Your task to perform on an android device: toggle priority inbox in the gmail app Image 0: 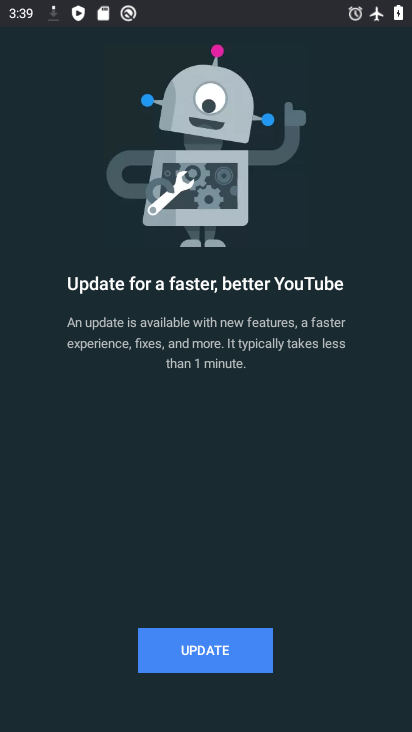
Step 0: press back button
Your task to perform on an android device: toggle priority inbox in the gmail app Image 1: 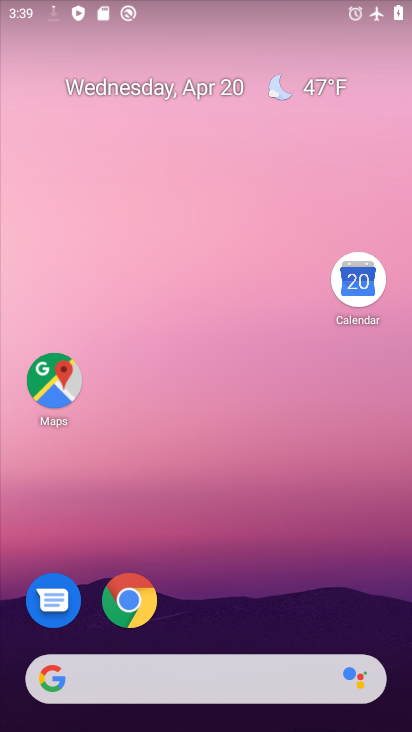
Step 1: drag from (231, 619) to (258, 246)
Your task to perform on an android device: toggle priority inbox in the gmail app Image 2: 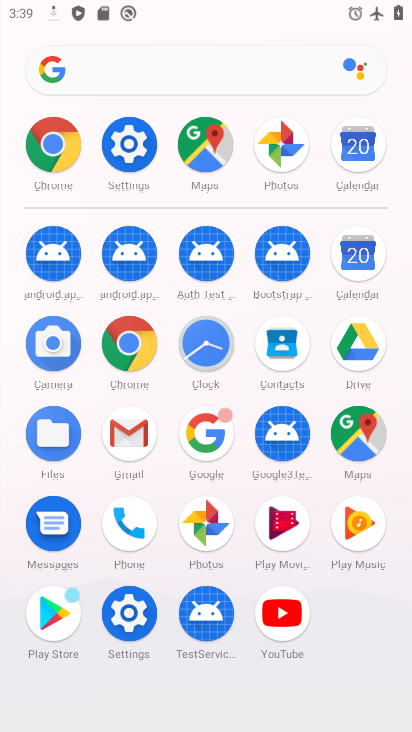
Step 2: click (114, 425)
Your task to perform on an android device: toggle priority inbox in the gmail app Image 3: 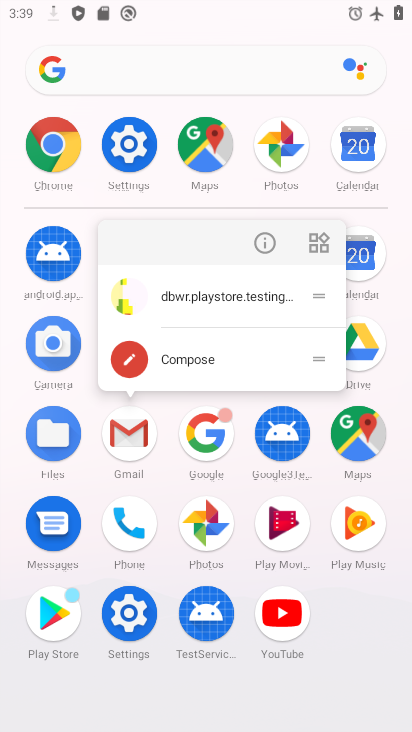
Step 3: click (121, 426)
Your task to perform on an android device: toggle priority inbox in the gmail app Image 4: 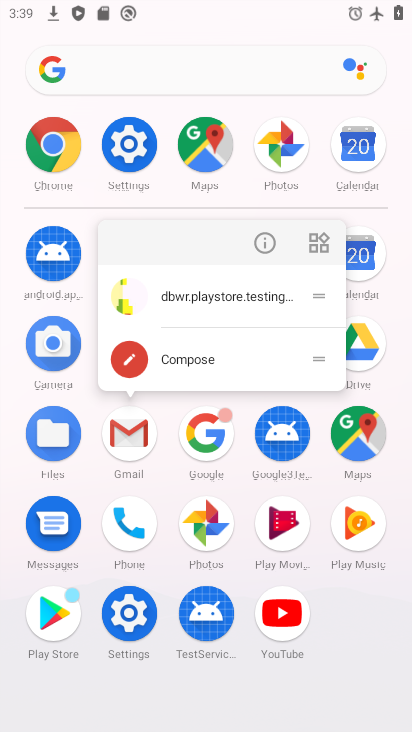
Step 4: click (122, 426)
Your task to perform on an android device: toggle priority inbox in the gmail app Image 5: 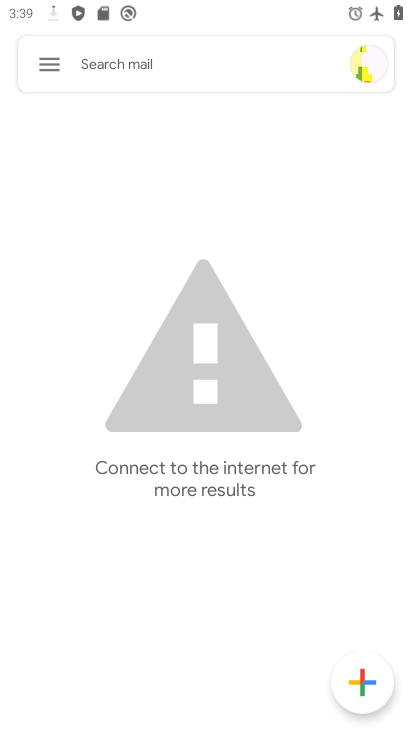
Step 5: click (46, 60)
Your task to perform on an android device: toggle priority inbox in the gmail app Image 6: 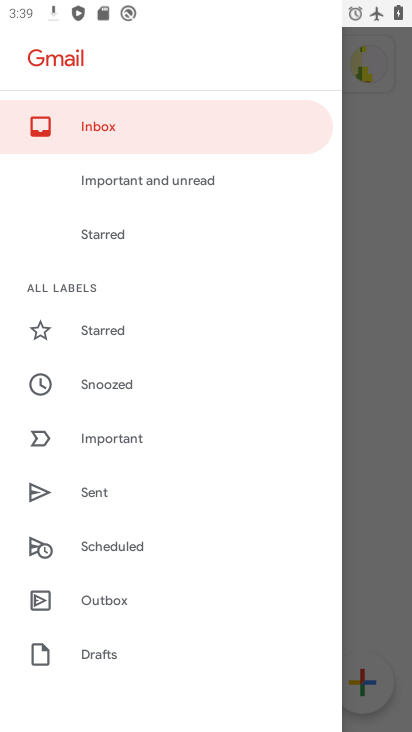
Step 6: drag from (144, 621) to (203, 293)
Your task to perform on an android device: toggle priority inbox in the gmail app Image 7: 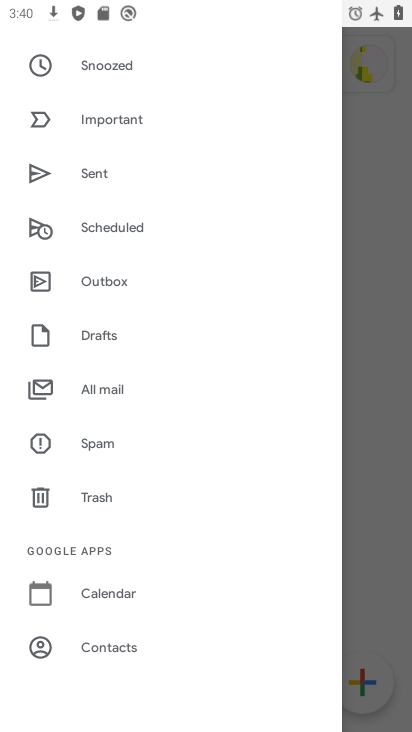
Step 7: drag from (127, 610) to (220, 317)
Your task to perform on an android device: toggle priority inbox in the gmail app Image 8: 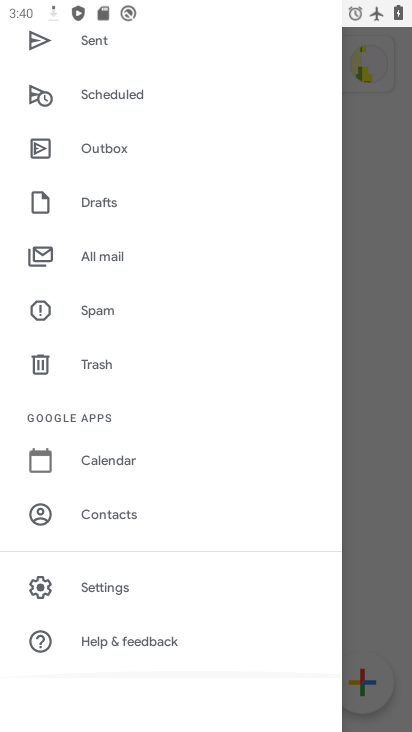
Step 8: click (96, 595)
Your task to perform on an android device: toggle priority inbox in the gmail app Image 9: 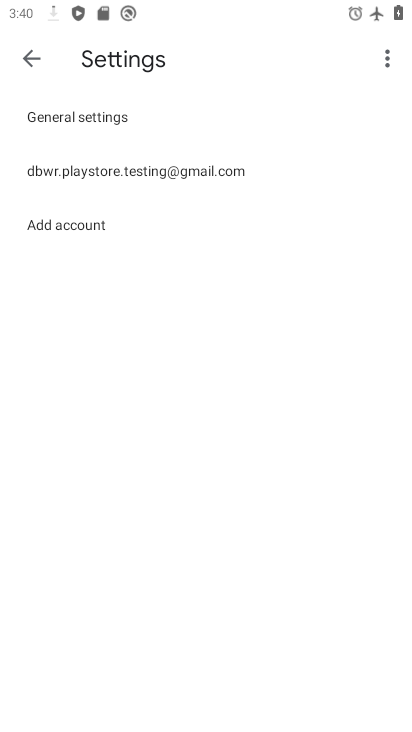
Step 9: click (217, 166)
Your task to perform on an android device: toggle priority inbox in the gmail app Image 10: 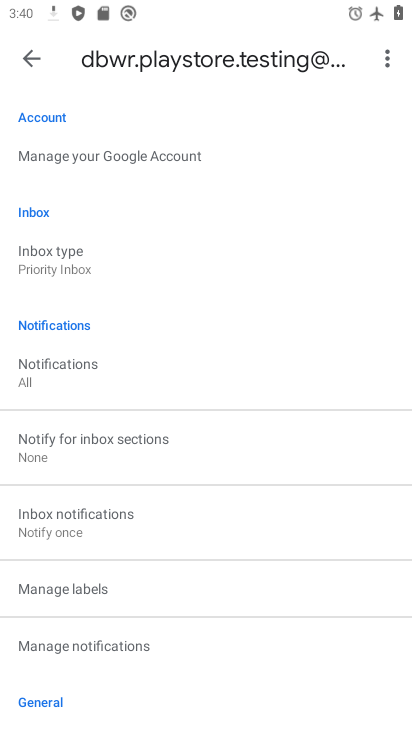
Step 10: click (87, 278)
Your task to perform on an android device: toggle priority inbox in the gmail app Image 11: 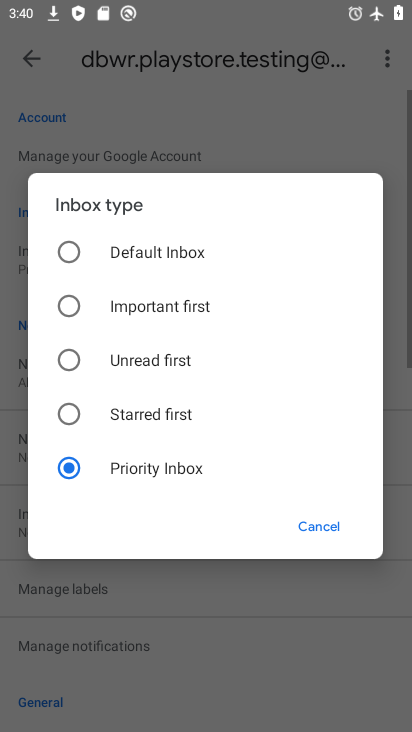
Step 11: click (120, 264)
Your task to perform on an android device: toggle priority inbox in the gmail app Image 12: 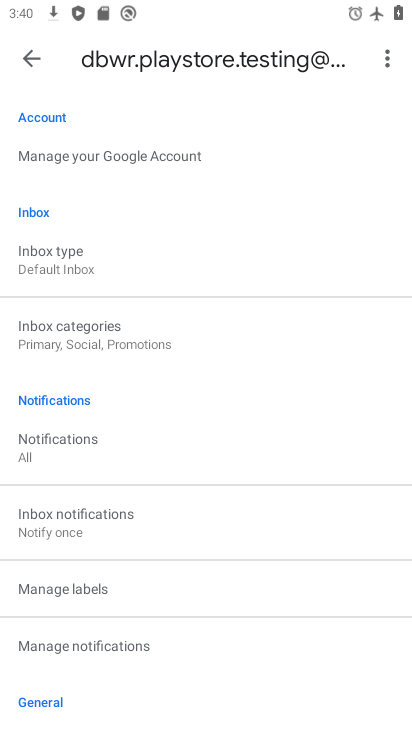
Step 12: task complete